Your task to perform on an android device: Open Google Image 0: 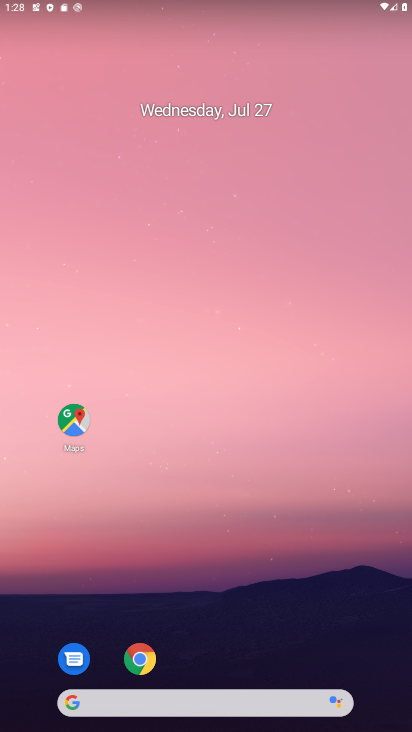
Step 0: press home button
Your task to perform on an android device: Open Google Image 1: 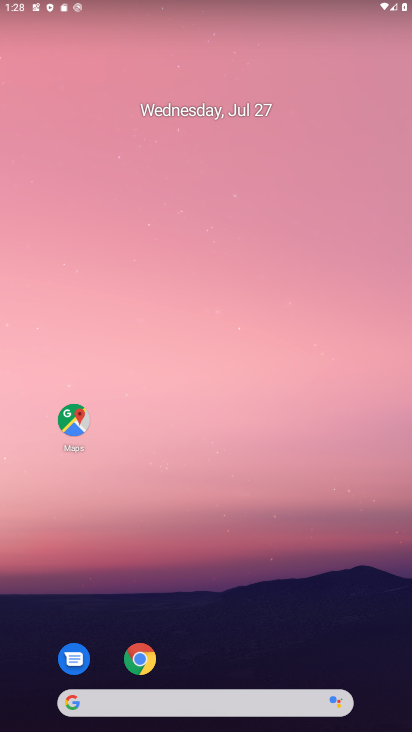
Step 1: drag from (284, 614) to (299, 66)
Your task to perform on an android device: Open Google Image 2: 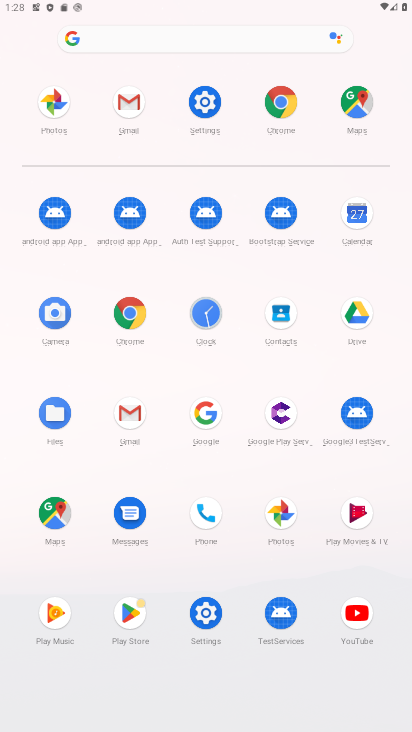
Step 2: click (205, 418)
Your task to perform on an android device: Open Google Image 3: 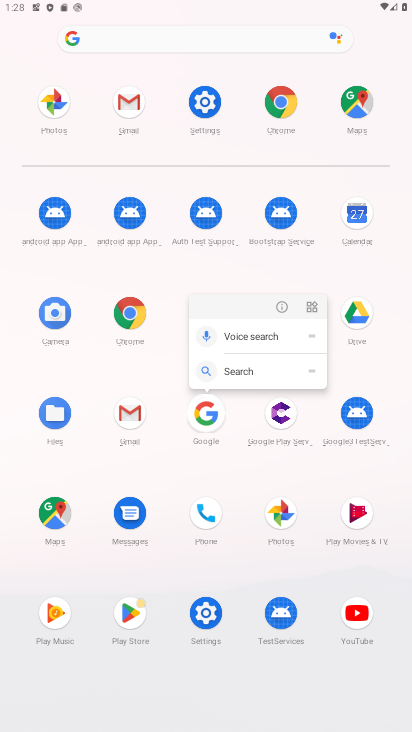
Step 3: click (205, 418)
Your task to perform on an android device: Open Google Image 4: 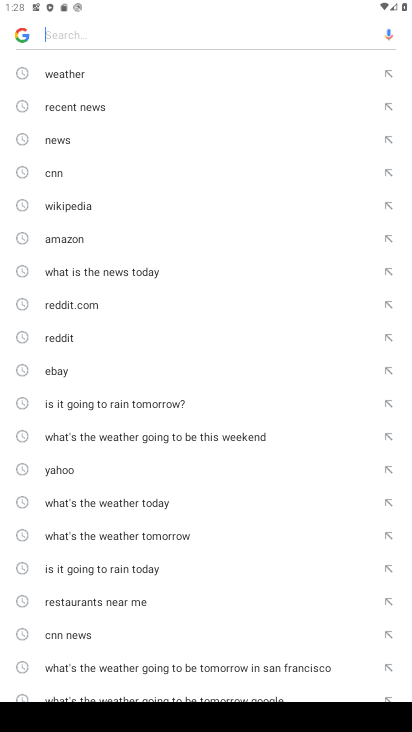
Step 4: task complete